Your task to perform on an android device: see sites visited before in the chrome app Image 0: 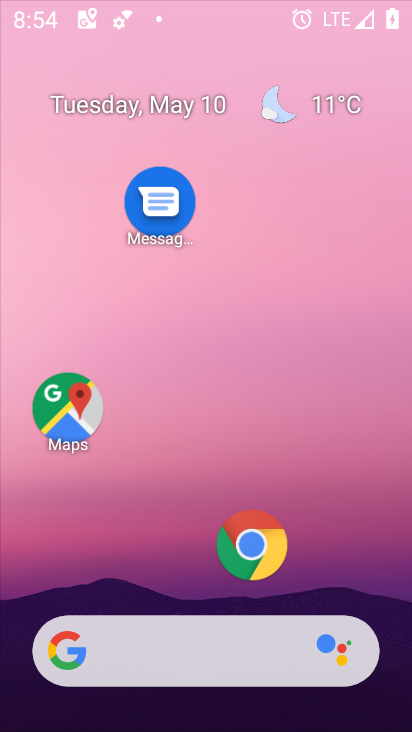
Step 0: press home button
Your task to perform on an android device: see sites visited before in the chrome app Image 1: 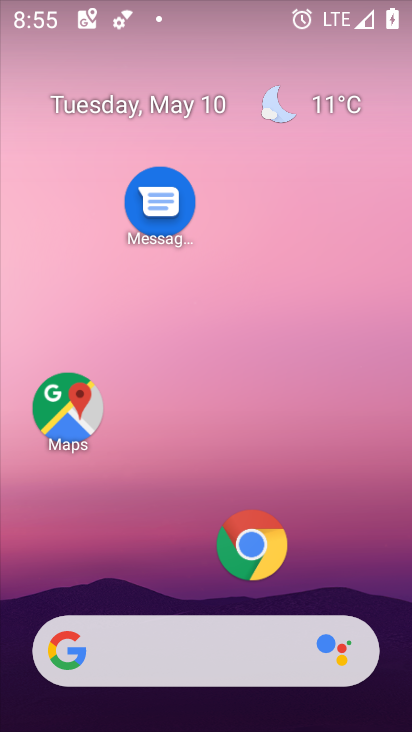
Step 1: drag from (189, 578) to (240, 51)
Your task to perform on an android device: see sites visited before in the chrome app Image 2: 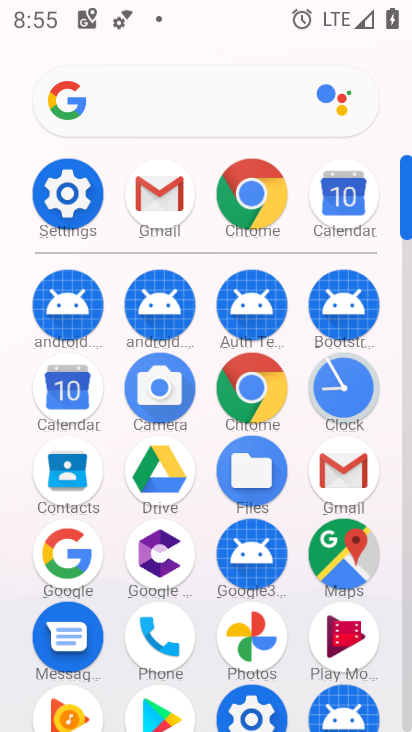
Step 2: click (244, 381)
Your task to perform on an android device: see sites visited before in the chrome app Image 3: 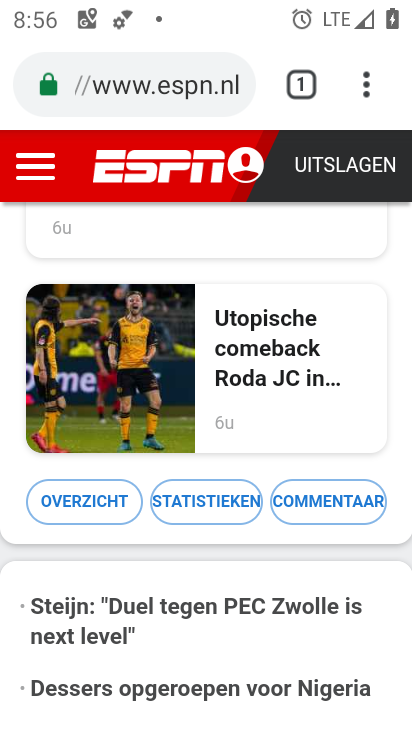
Step 3: click (371, 79)
Your task to perform on an android device: see sites visited before in the chrome app Image 4: 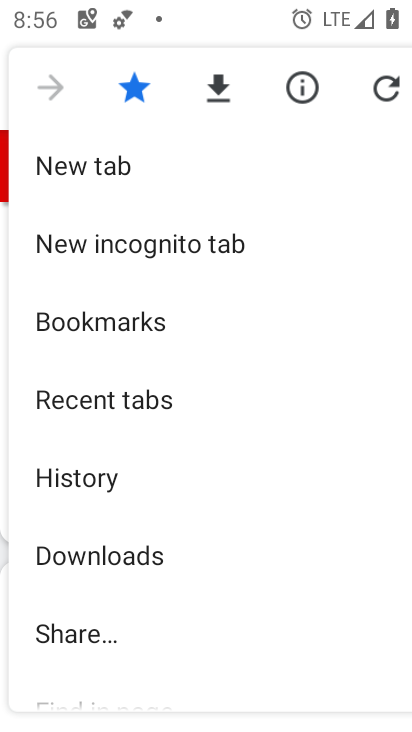
Step 4: click (128, 476)
Your task to perform on an android device: see sites visited before in the chrome app Image 5: 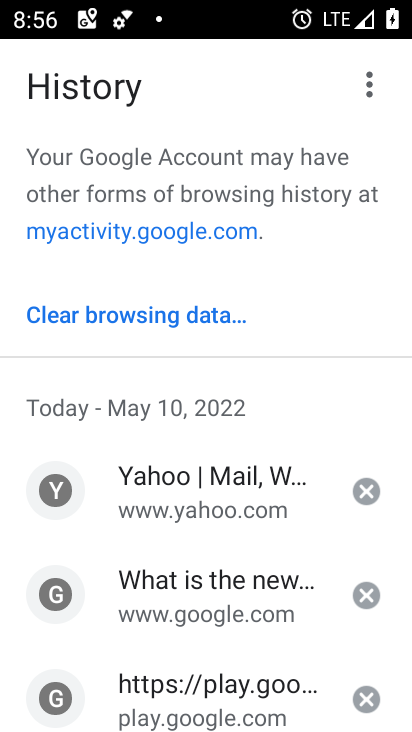
Step 5: task complete